Your task to perform on an android device: Open Yahoo.com Image 0: 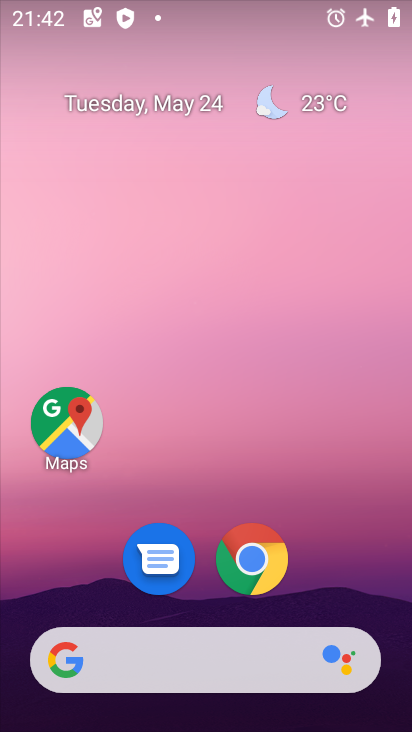
Step 0: drag from (342, 541) to (306, 65)
Your task to perform on an android device: Open Yahoo.com Image 1: 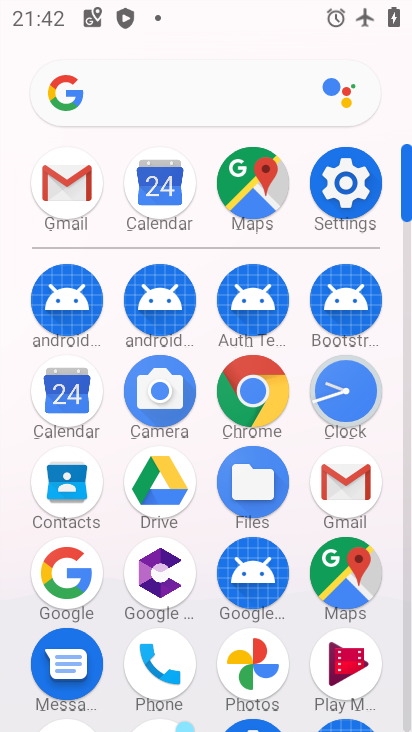
Step 1: click (341, 184)
Your task to perform on an android device: Open Yahoo.com Image 2: 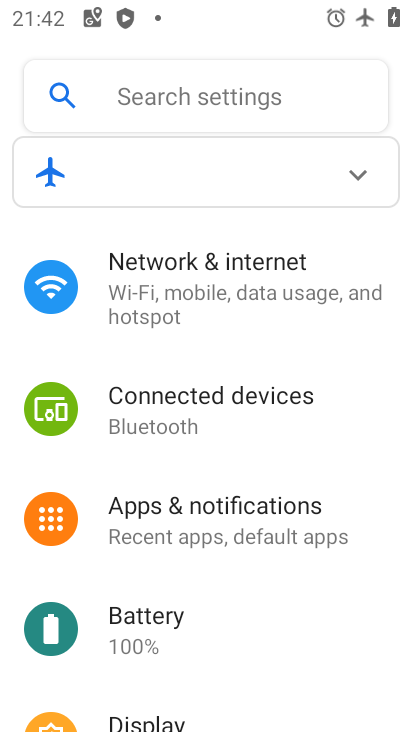
Step 2: drag from (263, 647) to (278, 250)
Your task to perform on an android device: Open Yahoo.com Image 3: 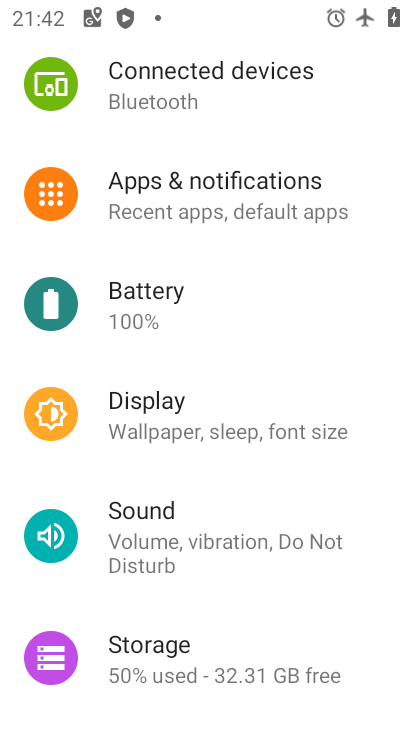
Step 3: press home button
Your task to perform on an android device: Open Yahoo.com Image 4: 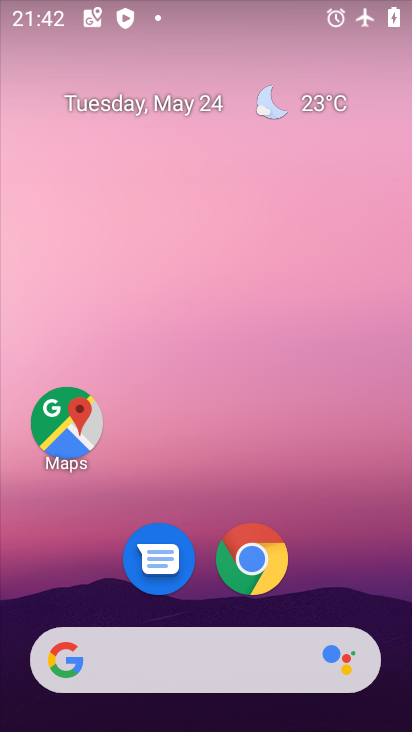
Step 4: click (253, 555)
Your task to perform on an android device: Open Yahoo.com Image 5: 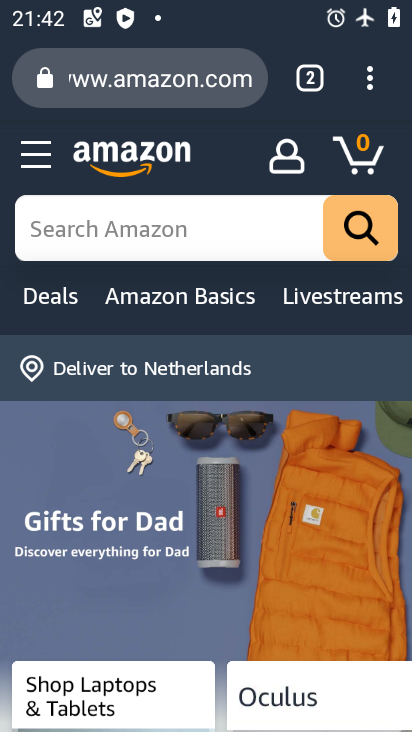
Step 5: click (188, 92)
Your task to perform on an android device: Open Yahoo.com Image 6: 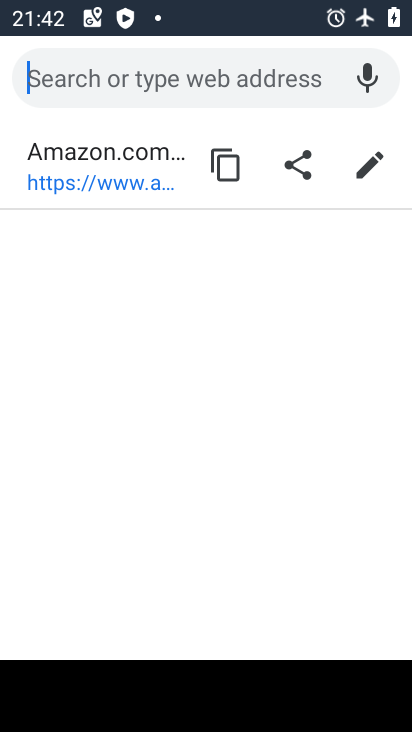
Step 6: type "yahoo.com"
Your task to perform on an android device: Open Yahoo.com Image 7: 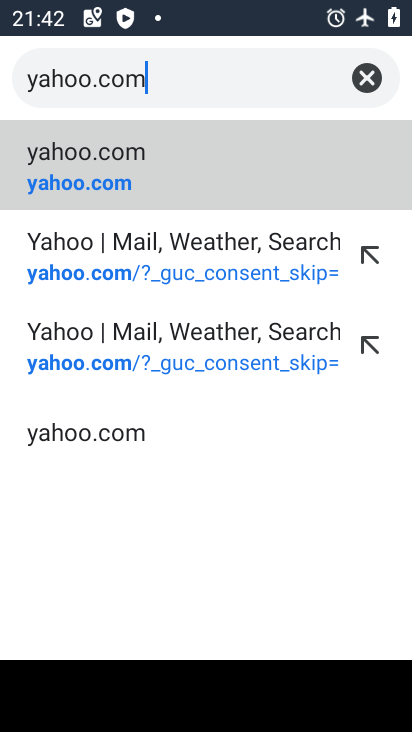
Step 7: click (116, 182)
Your task to perform on an android device: Open Yahoo.com Image 8: 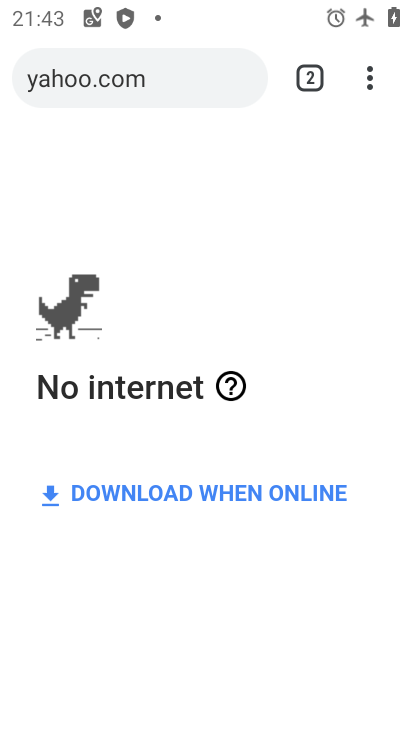
Step 8: task complete